Your task to perform on an android device: Open CNN.com Image 0: 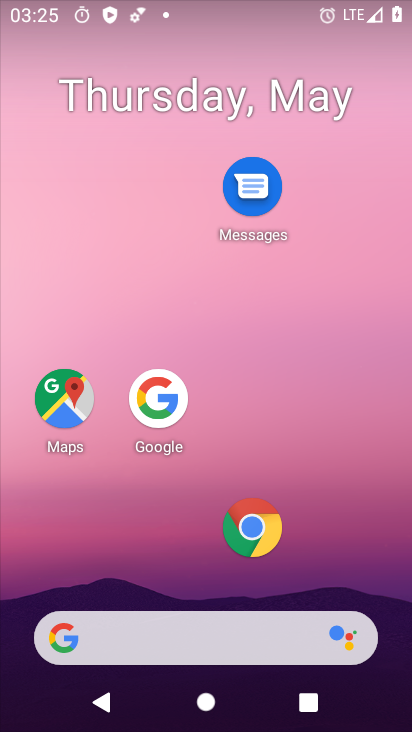
Step 0: drag from (224, 15) to (1, 131)
Your task to perform on an android device: Open CNN.com Image 1: 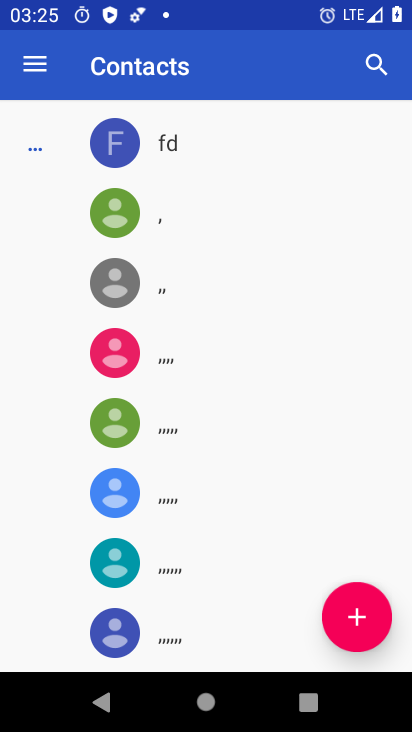
Step 1: press home button
Your task to perform on an android device: Open CNN.com Image 2: 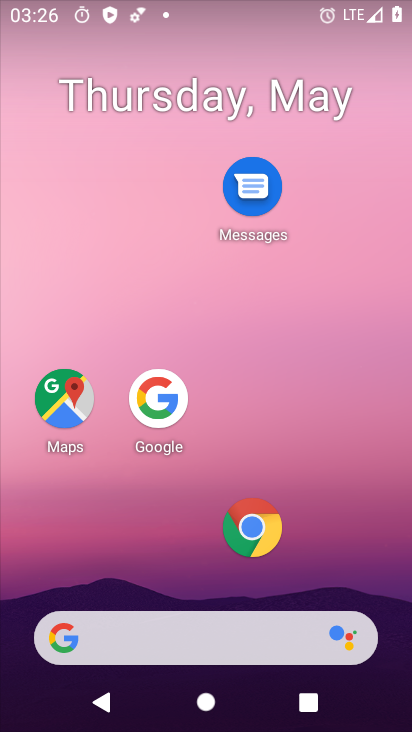
Step 2: drag from (199, 589) to (237, 96)
Your task to perform on an android device: Open CNN.com Image 3: 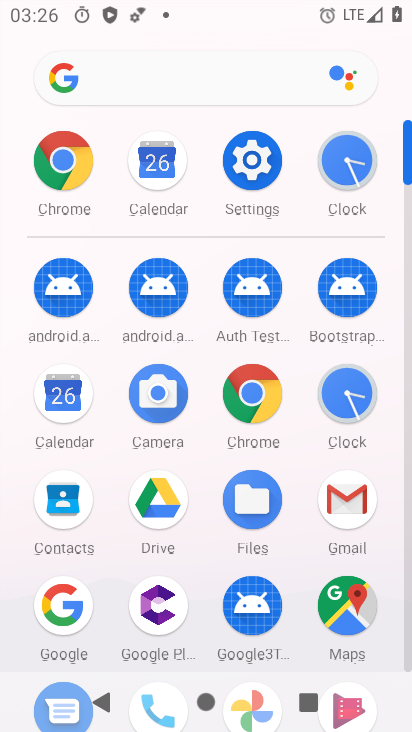
Step 3: click (131, 76)
Your task to perform on an android device: Open CNN.com Image 4: 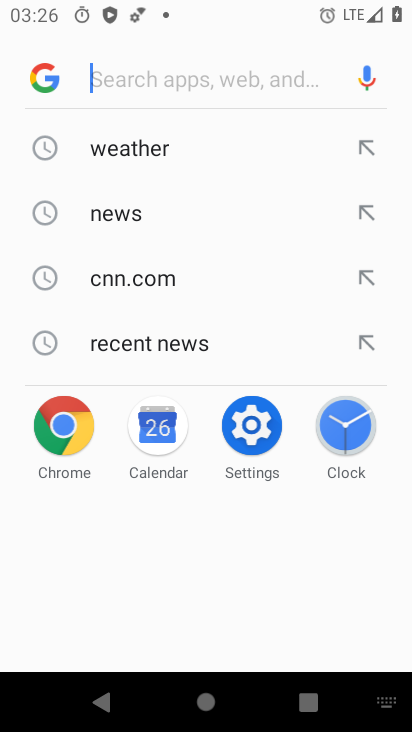
Step 4: click (131, 76)
Your task to perform on an android device: Open CNN.com Image 5: 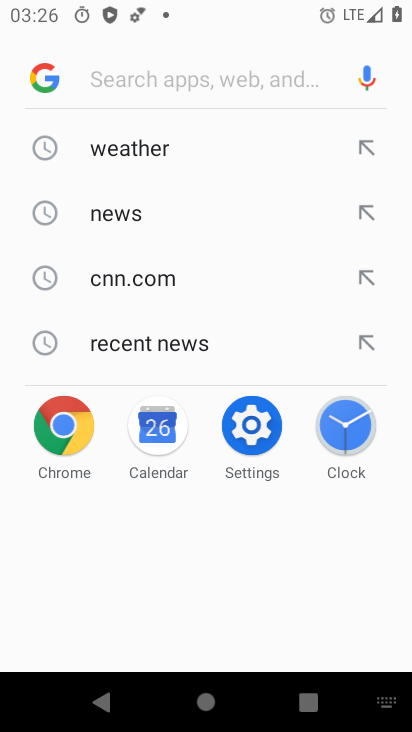
Step 5: click (131, 288)
Your task to perform on an android device: Open CNN.com Image 6: 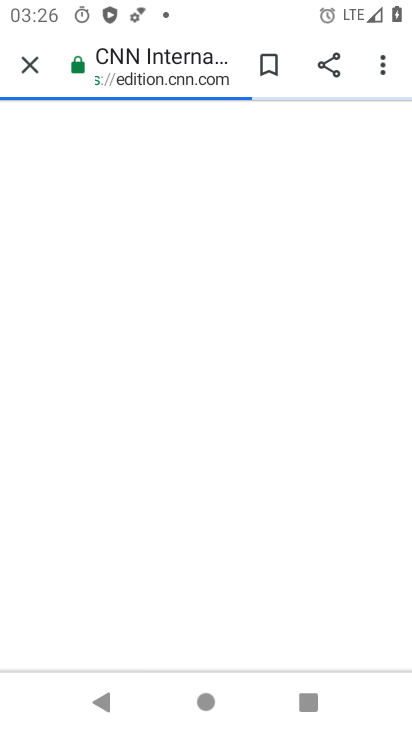
Step 6: task complete